Your task to perform on an android device: Go to Maps Image 0: 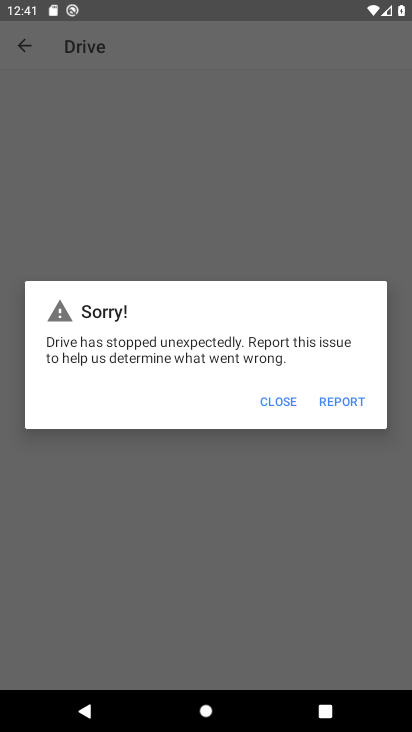
Step 0: press home button
Your task to perform on an android device: Go to Maps Image 1: 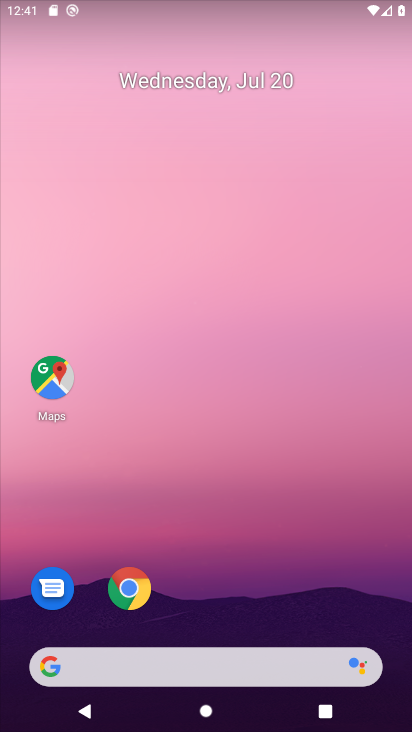
Step 1: click (61, 391)
Your task to perform on an android device: Go to Maps Image 2: 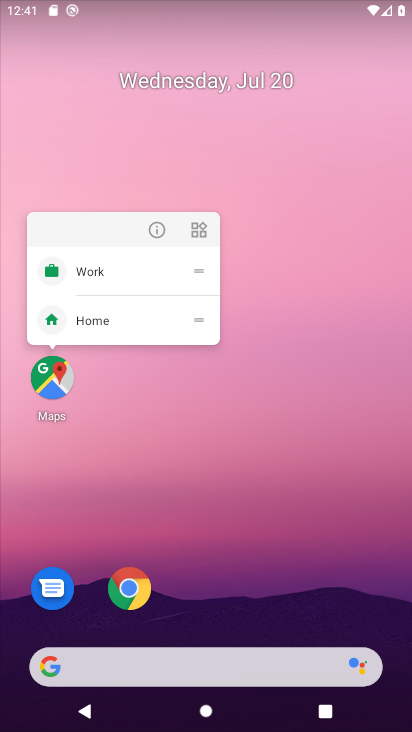
Step 2: click (51, 374)
Your task to perform on an android device: Go to Maps Image 3: 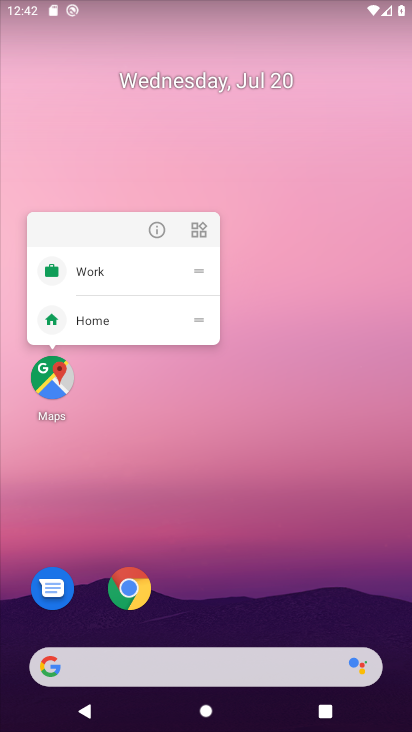
Step 3: click (51, 374)
Your task to perform on an android device: Go to Maps Image 4: 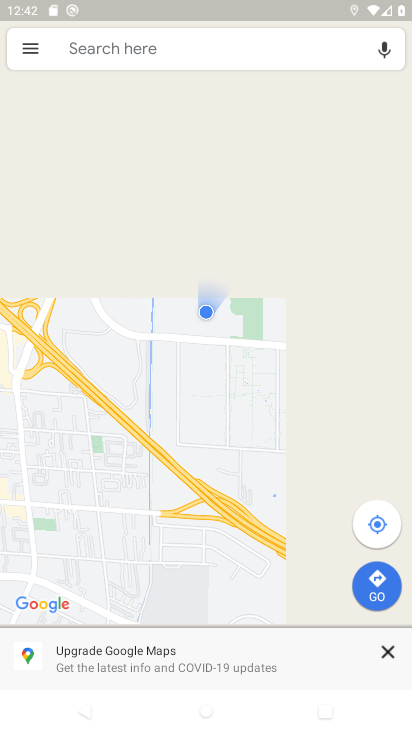
Step 4: task complete